Your task to perform on an android device: Set the phone to "Do not disturb". Image 0: 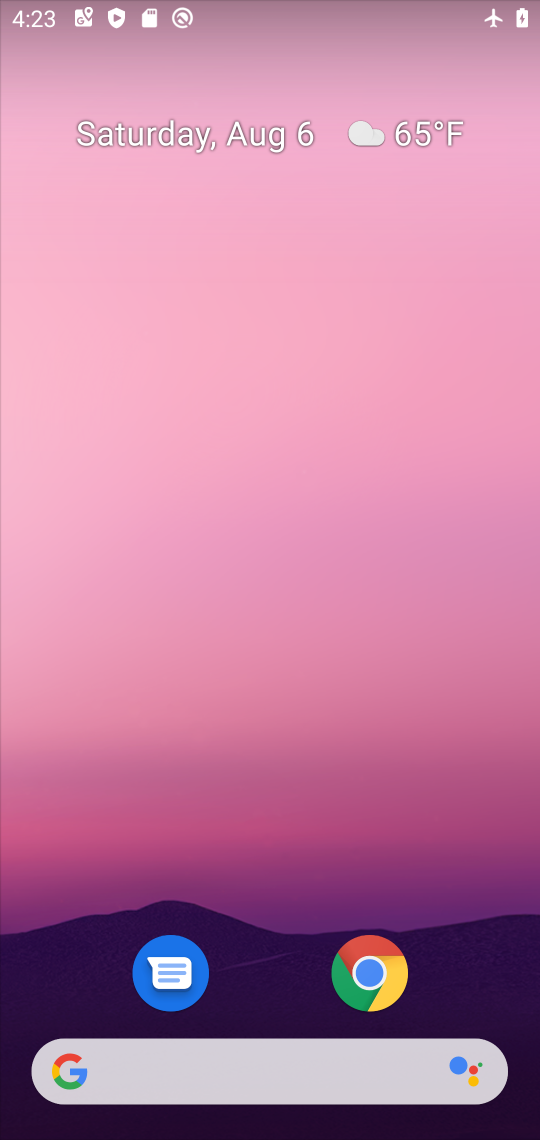
Step 0: drag from (348, 0) to (383, 657)
Your task to perform on an android device: Set the phone to "Do not disturb". Image 1: 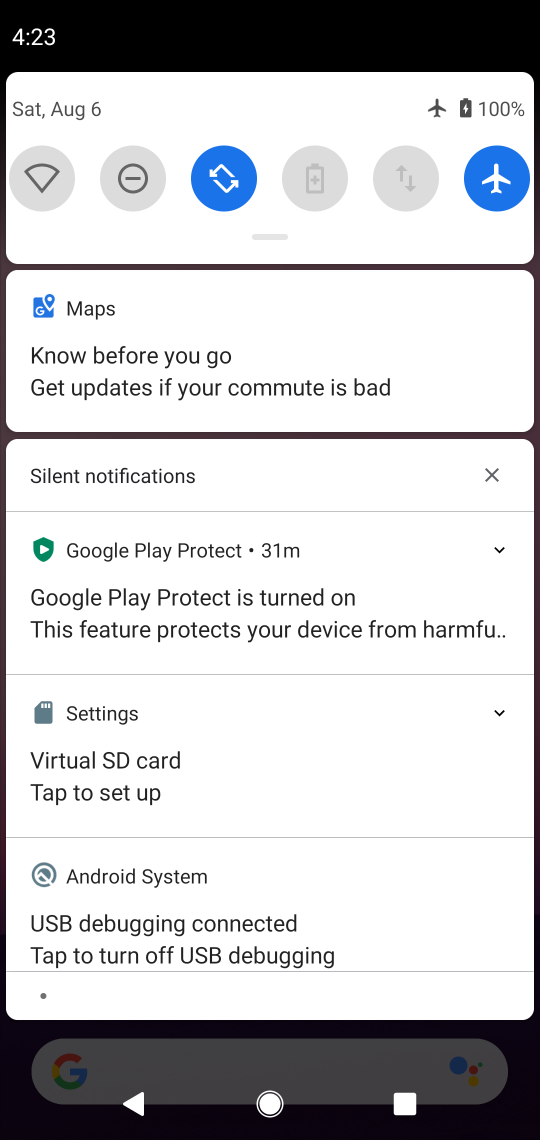
Step 1: click (127, 176)
Your task to perform on an android device: Set the phone to "Do not disturb". Image 2: 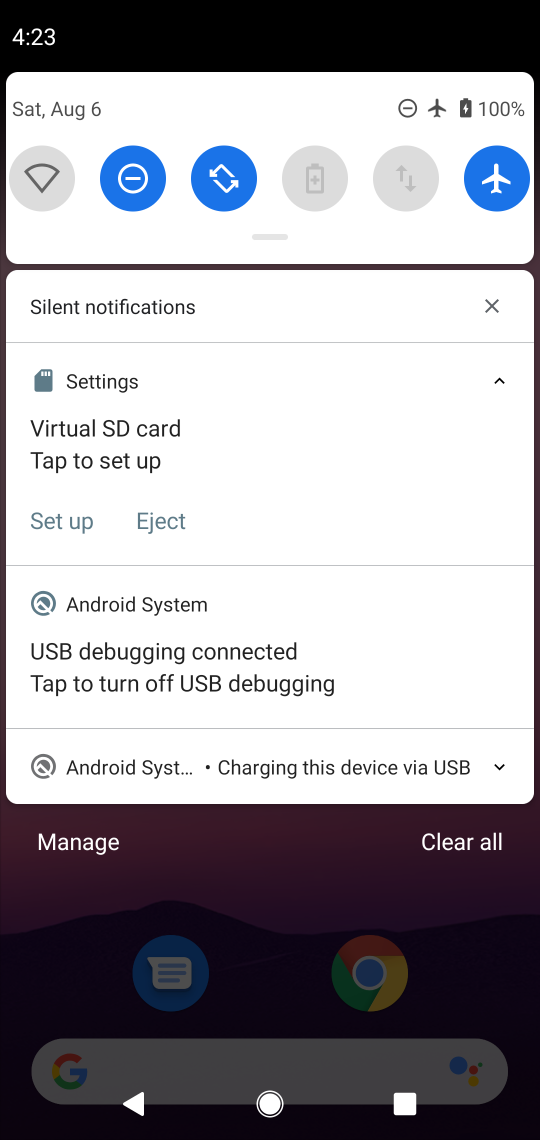
Step 2: task complete